Your task to perform on an android device: Open notification settings Image 0: 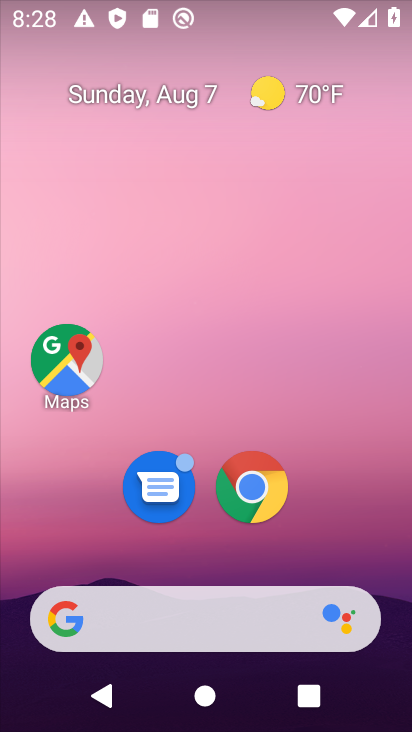
Step 0: drag from (384, 692) to (333, 68)
Your task to perform on an android device: Open notification settings Image 1: 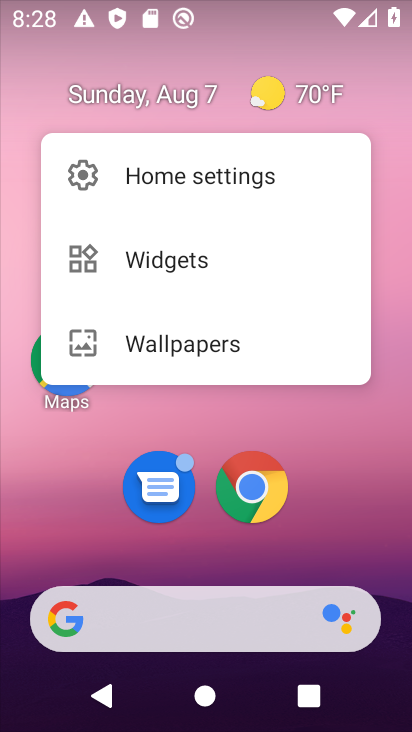
Step 1: click (387, 550)
Your task to perform on an android device: Open notification settings Image 2: 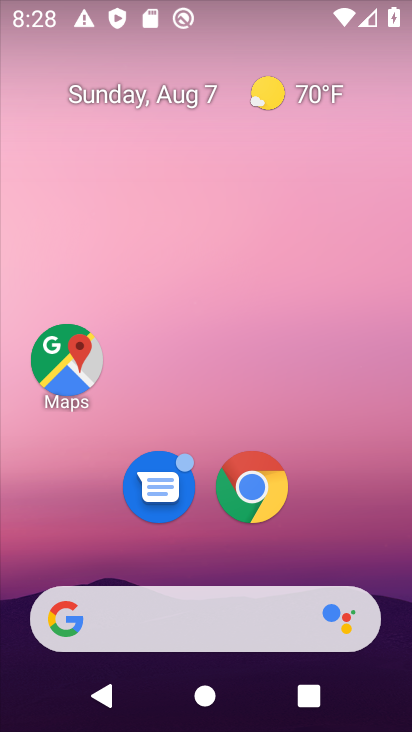
Step 2: drag from (381, 701) to (365, 64)
Your task to perform on an android device: Open notification settings Image 3: 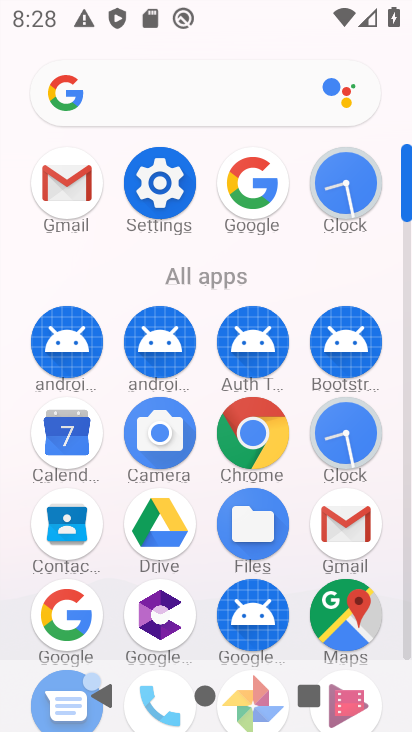
Step 3: click (161, 193)
Your task to perform on an android device: Open notification settings Image 4: 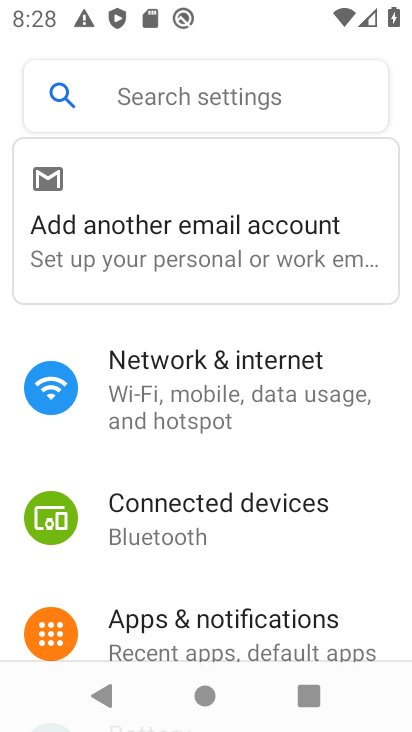
Step 4: click (246, 628)
Your task to perform on an android device: Open notification settings Image 5: 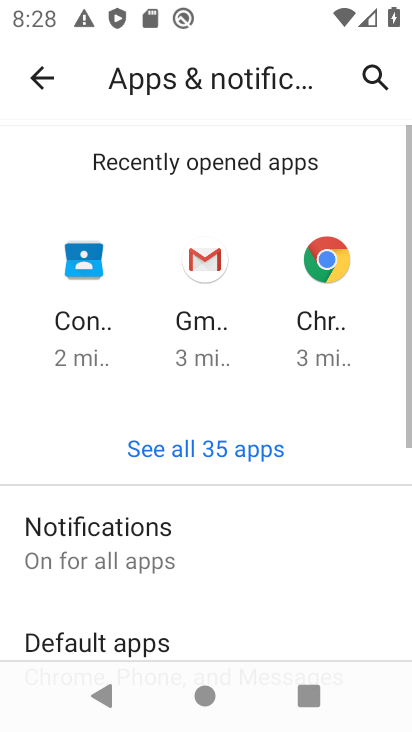
Step 5: click (140, 550)
Your task to perform on an android device: Open notification settings Image 6: 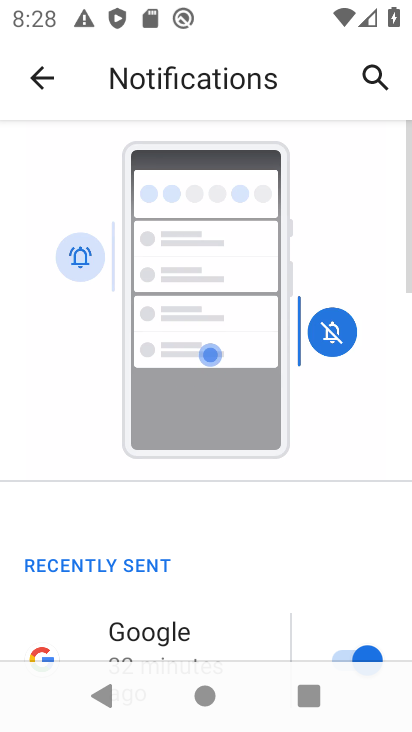
Step 6: task complete